Your task to perform on an android device: change the clock display to analog Image 0: 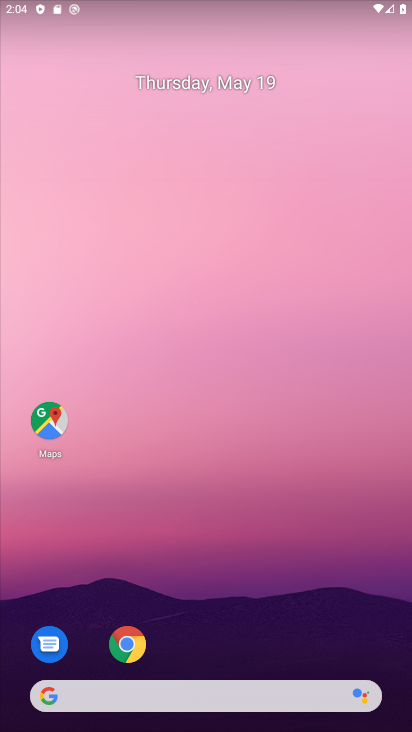
Step 0: drag from (264, 603) to (299, 193)
Your task to perform on an android device: change the clock display to analog Image 1: 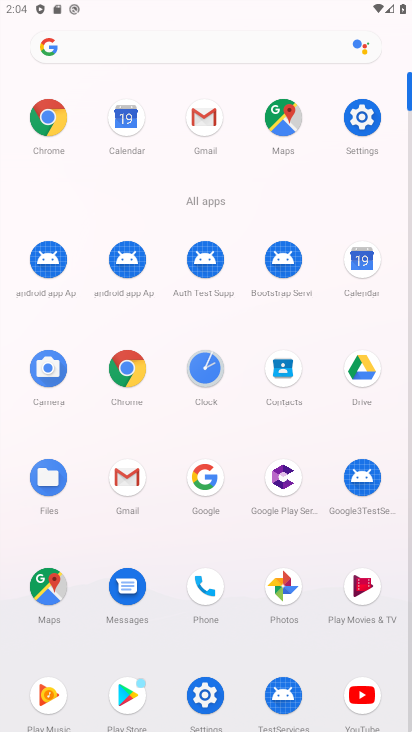
Step 1: click (206, 354)
Your task to perform on an android device: change the clock display to analog Image 2: 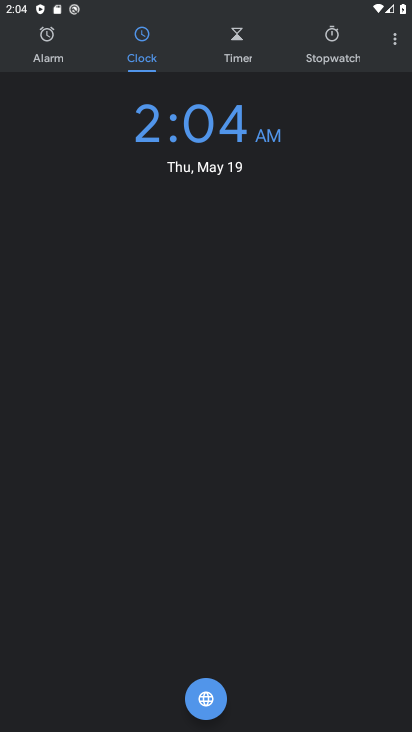
Step 2: click (392, 28)
Your task to perform on an android device: change the clock display to analog Image 3: 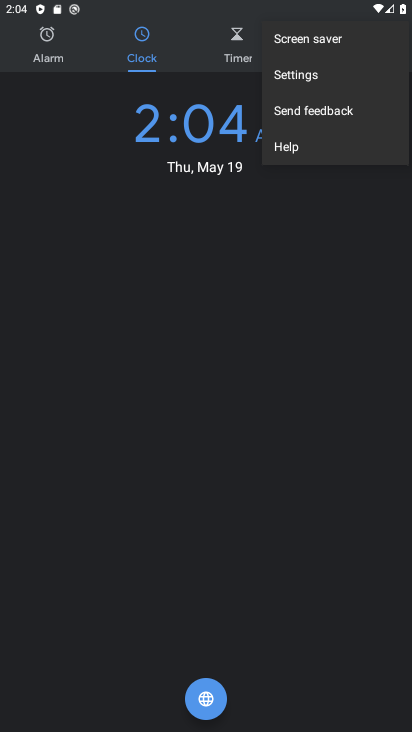
Step 3: click (306, 75)
Your task to perform on an android device: change the clock display to analog Image 4: 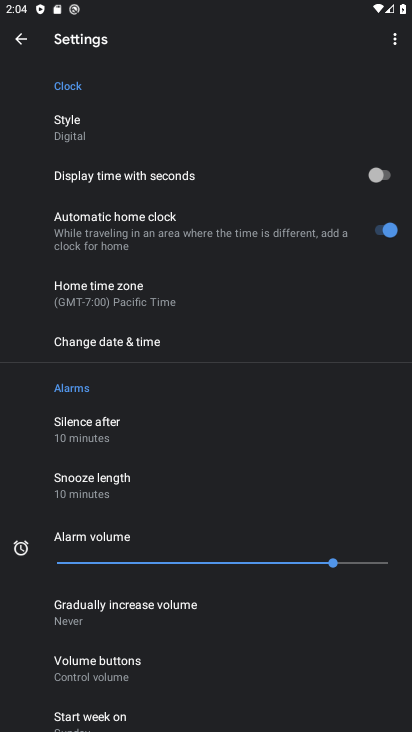
Step 4: drag from (247, 152) to (271, 465)
Your task to perform on an android device: change the clock display to analog Image 5: 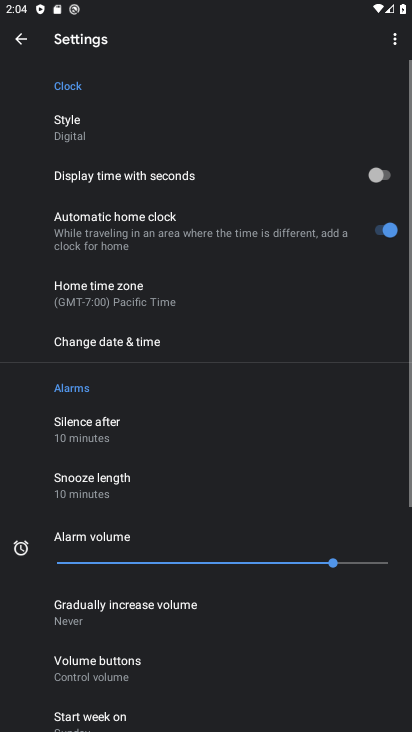
Step 5: click (81, 133)
Your task to perform on an android device: change the clock display to analog Image 6: 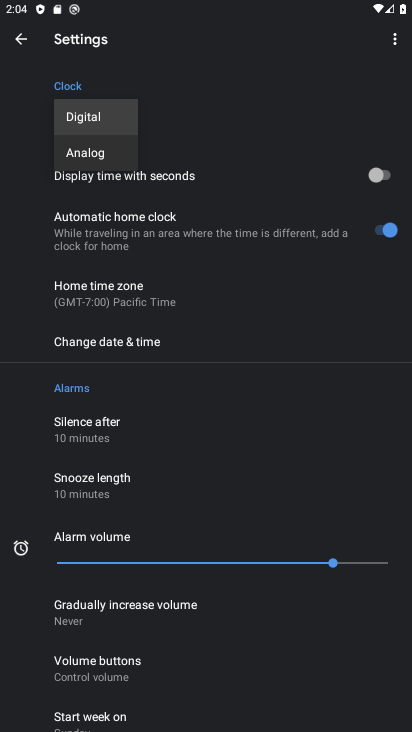
Step 6: click (98, 149)
Your task to perform on an android device: change the clock display to analog Image 7: 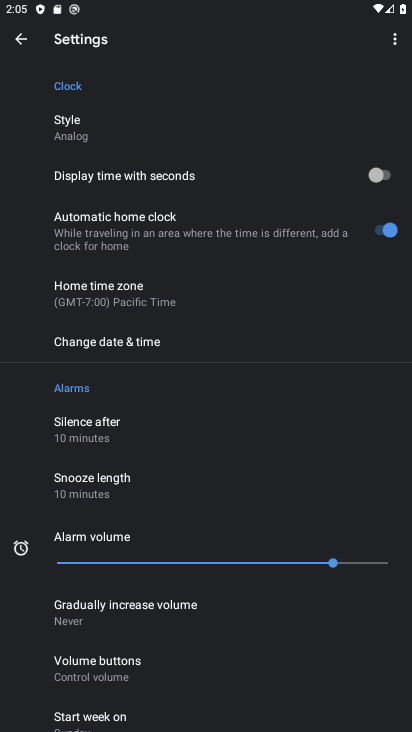
Step 7: task complete